Your task to perform on an android device: Open Amazon Image 0: 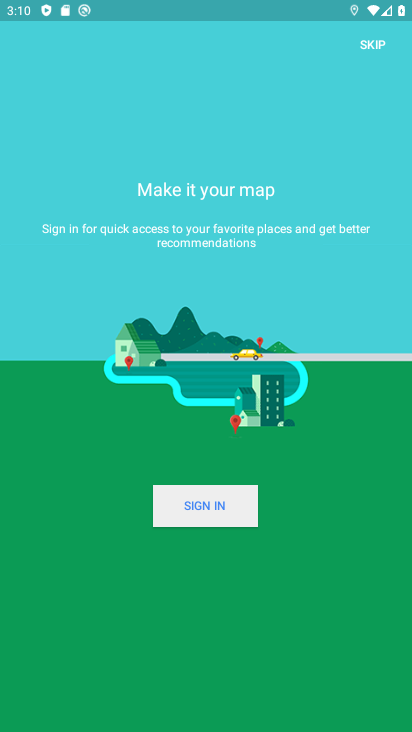
Step 0: click (389, 0)
Your task to perform on an android device: Open Amazon Image 1: 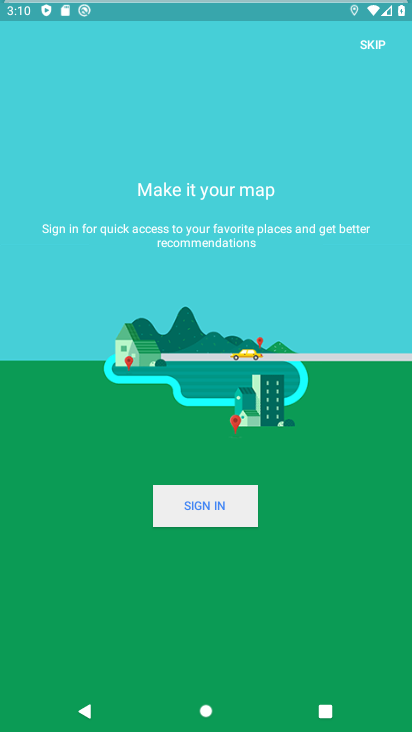
Step 1: press home button
Your task to perform on an android device: Open Amazon Image 2: 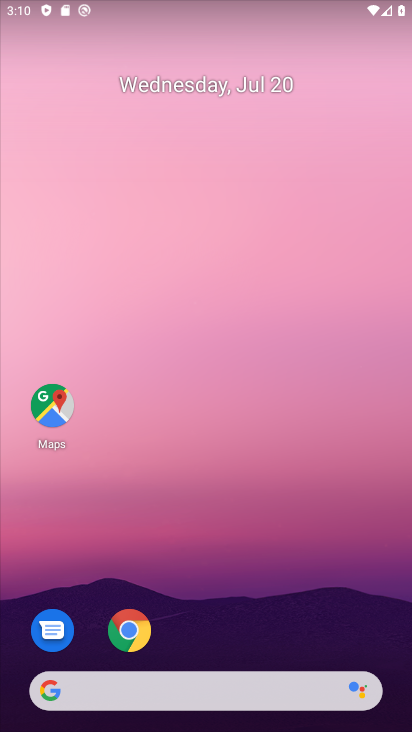
Step 2: click (45, 686)
Your task to perform on an android device: Open Amazon Image 3: 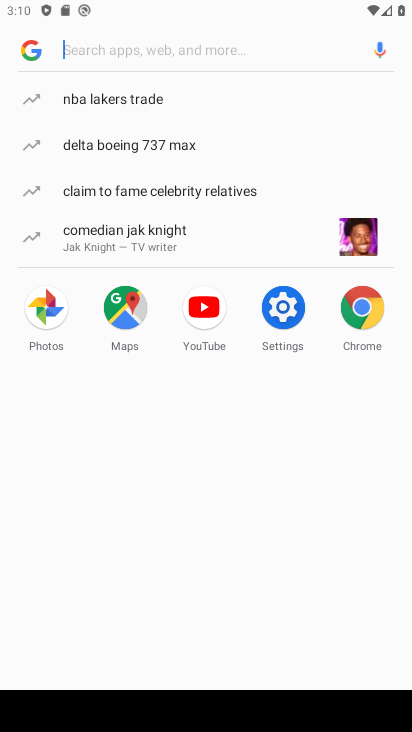
Step 3: type " Amazon"
Your task to perform on an android device: Open Amazon Image 4: 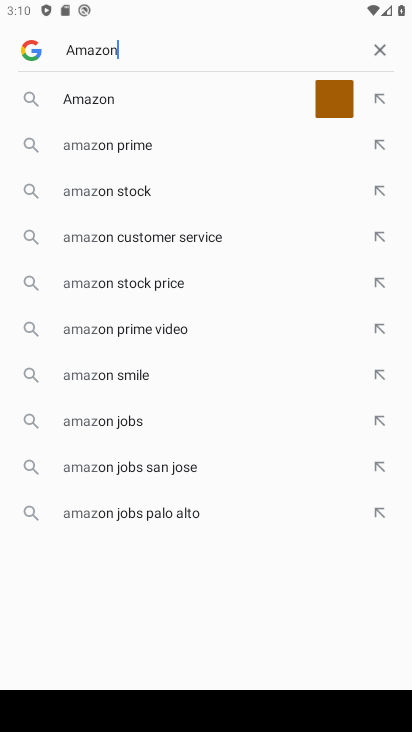
Step 4: press enter
Your task to perform on an android device: Open Amazon Image 5: 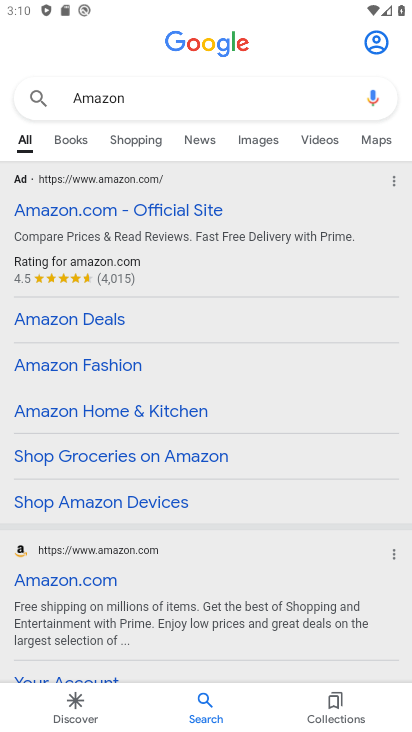
Step 5: click (66, 213)
Your task to perform on an android device: Open Amazon Image 6: 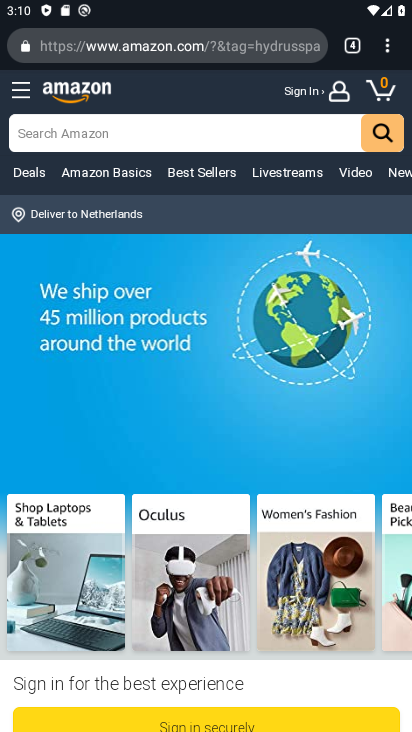
Step 6: task complete